Your task to perform on an android device: check google app version Image 0: 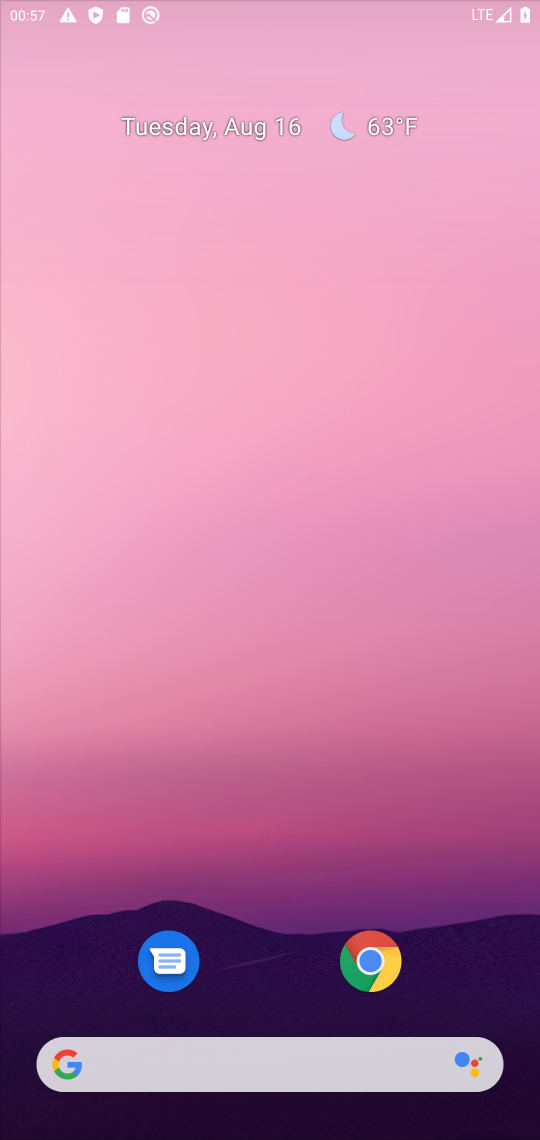
Step 0: press home button
Your task to perform on an android device: check google app version Image 1: 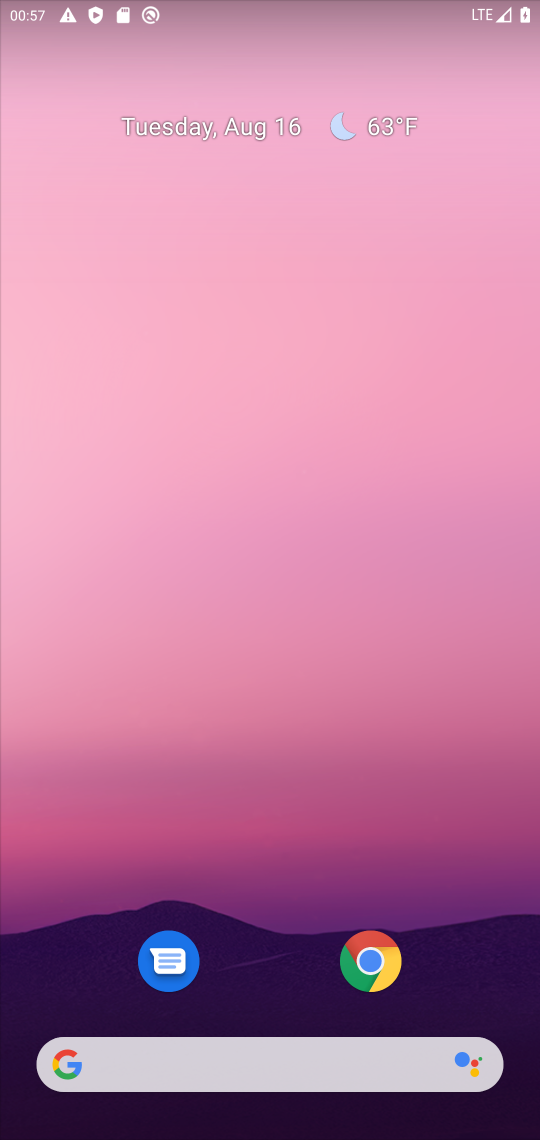
Step 1: press home button
Your task to perform on an android device: check google app version Image 2: 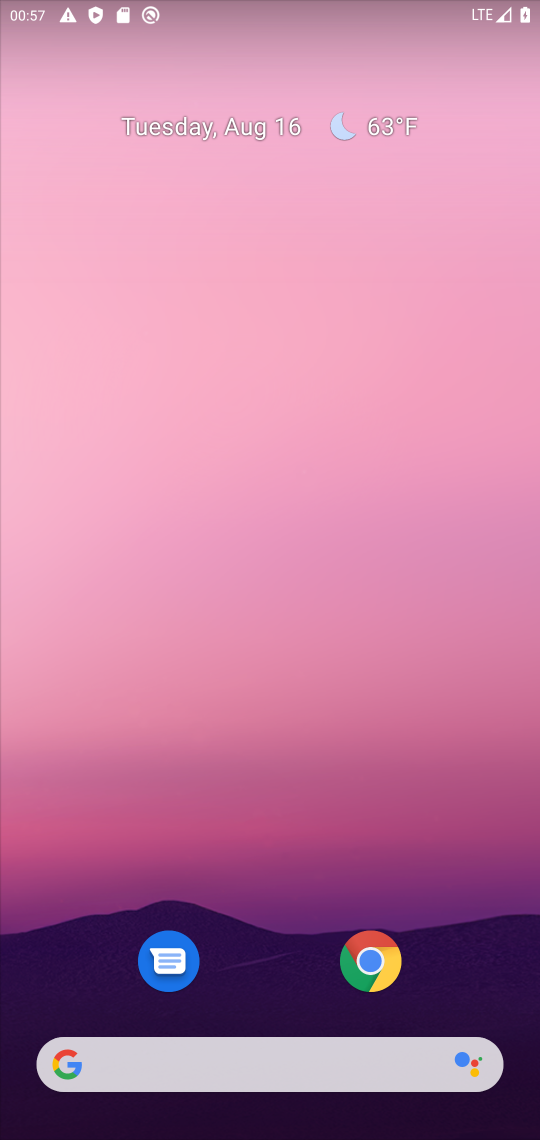
Step 2: drag from (272, 1091) to (412, 96)
Your task to perform on an android device: check google app version Image 3: 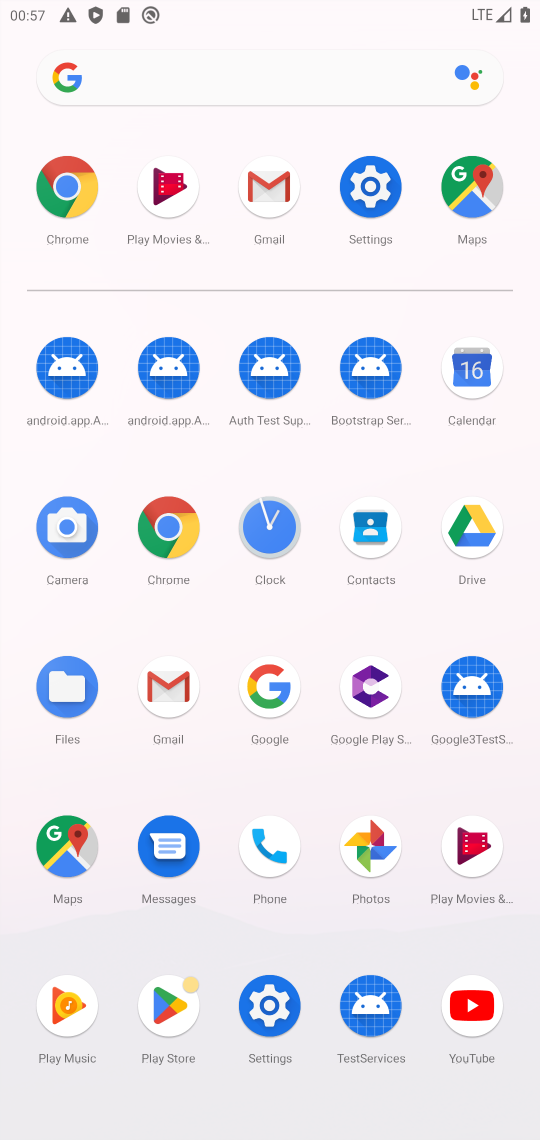
Step 3: click (268, 704)
Your task to perform on an android device: check google app version Image 4: 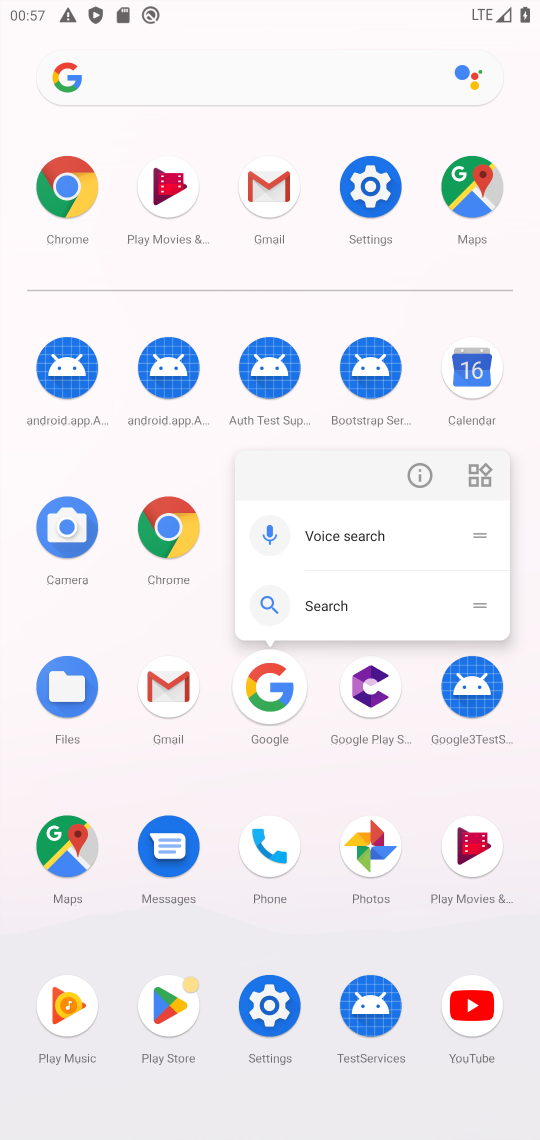
Step 4: click (412, 472)
Your task to perform on an android device: check google app version Image 5: 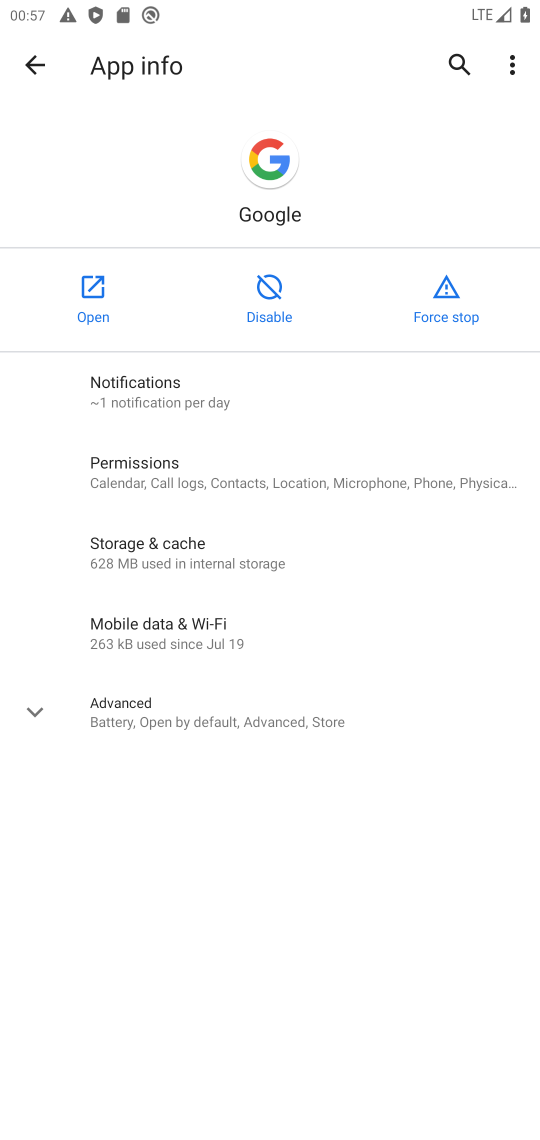
Step 5: click (186, 718)
Your task to perform on an android device: check google app version Image 6: 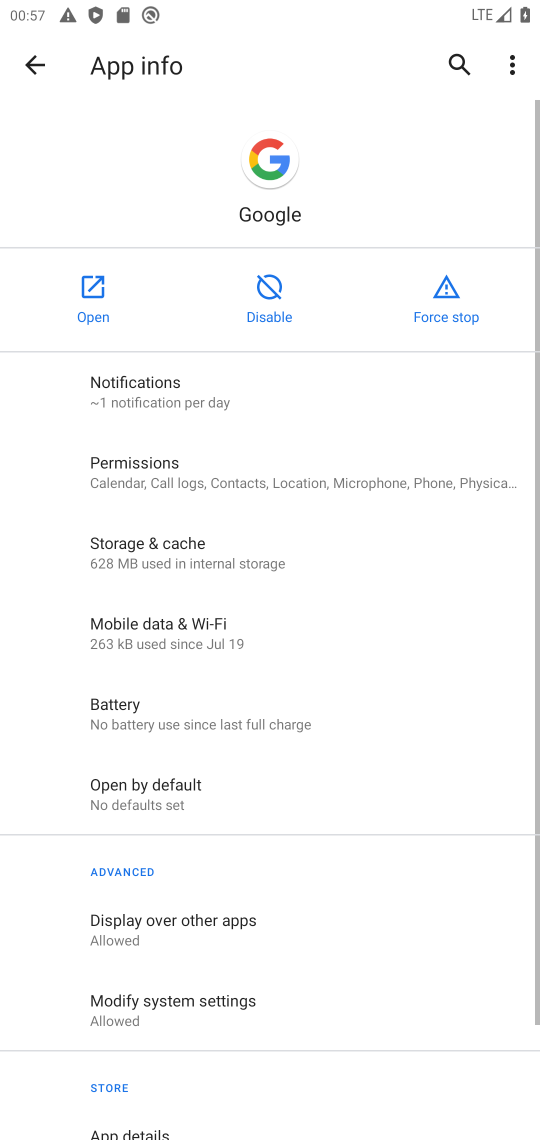
Step 6: task complete